Your task to perform on an android device: check battery use Image 0: 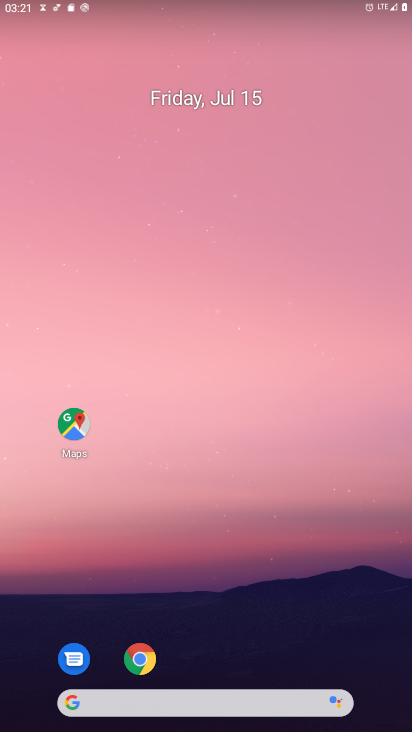
Step 0: drag from (215, 664) to (226, 306)
Your task to perform on an android device: check battery use Image 1: 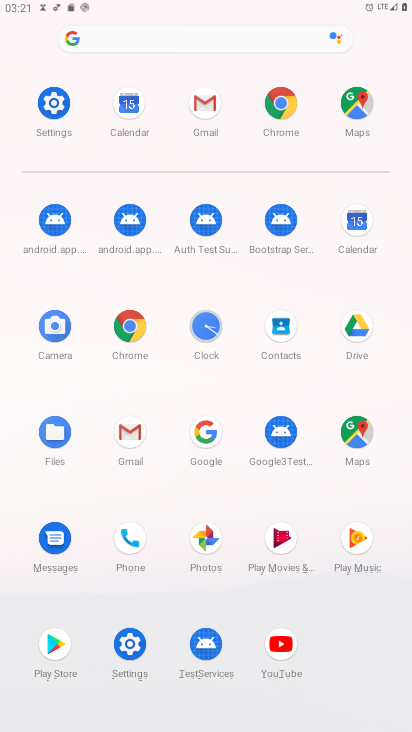
Step 1: click (28, 95)
Your task to perform on an android device: check battery use Image 2: 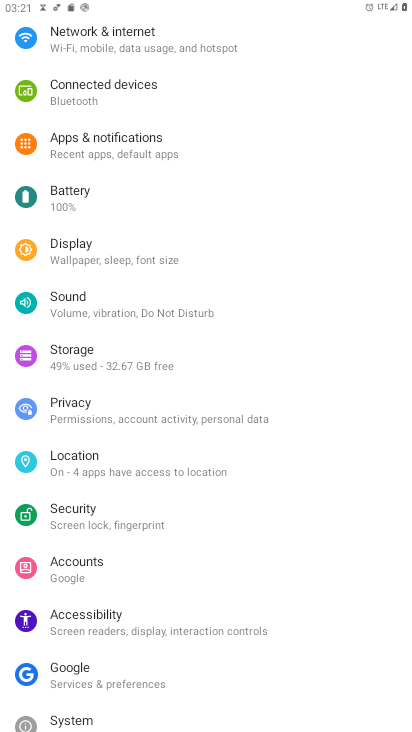
Step 2: click (77, 203)
Your task to perform on an android device: check battery use Image 3: 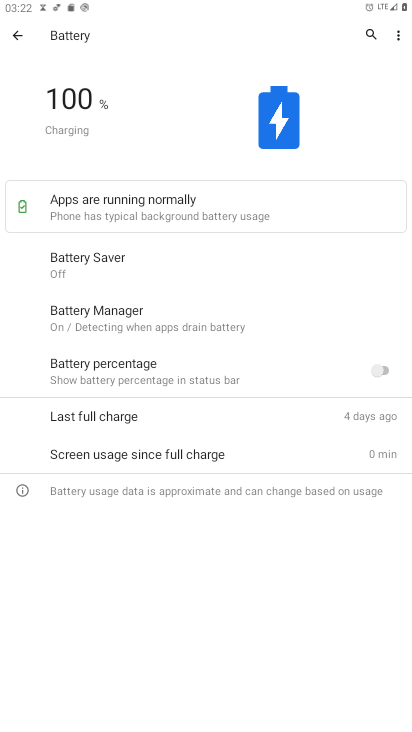
Step 3: click (110, 208)
Your task to perform on an android device: check battery use Image 4: 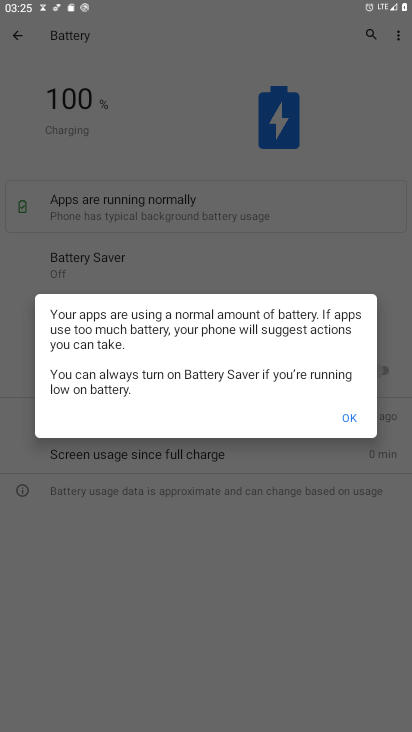
Step 4: task complete